Your task to perform on an android device: turn on data saver in the chrome app Image 0: 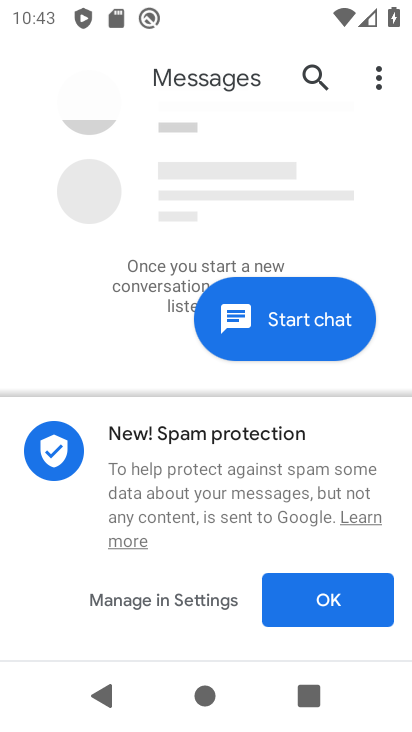
Step 0: press home button
Your task to perform on an android device: turn on data saver in the chrome app Image 1: 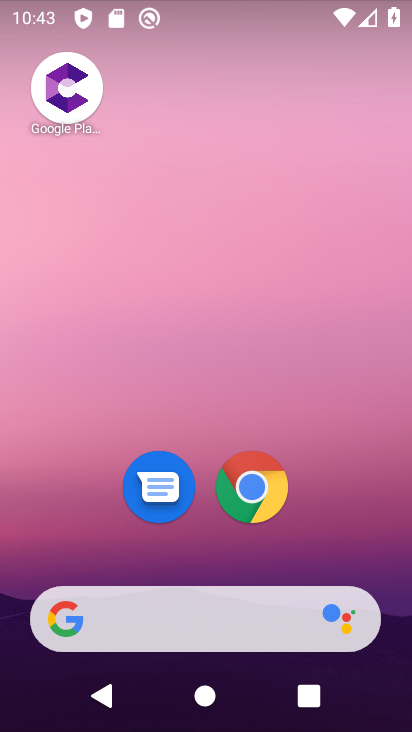
Step 1: click (252, 483)
Your task to perform on an android device: turn on data saver in the chrome app Image 2: 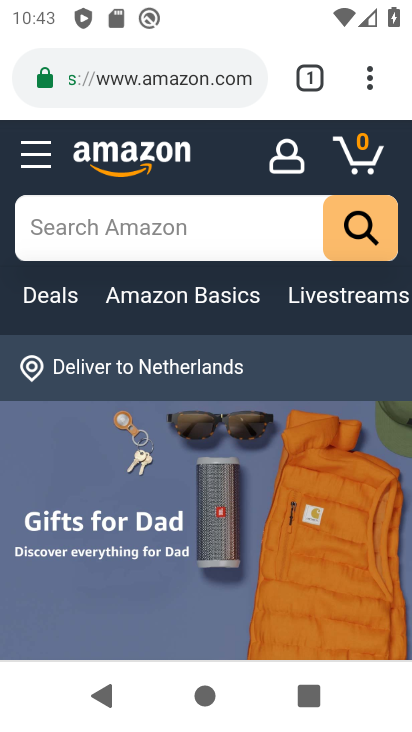
Step 2: click (377, 70)
Your task to perform on an android device: turn on data saver in the chrome app Image 3: 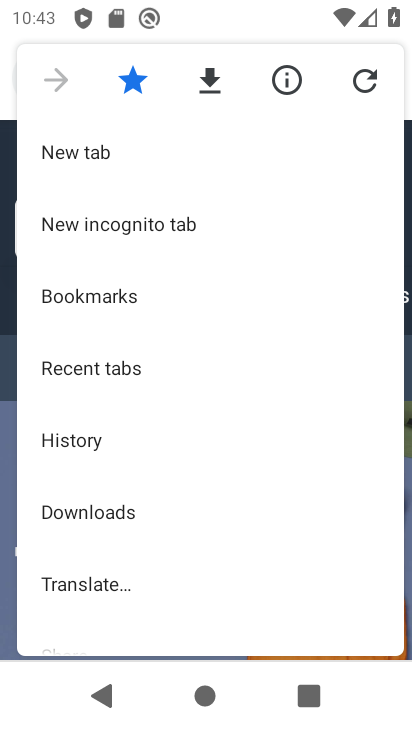
Step 3: drag from (191, 599) to (232, 384)
Your task to perform on an android device: turn on data saver in the chrome app Image 4: 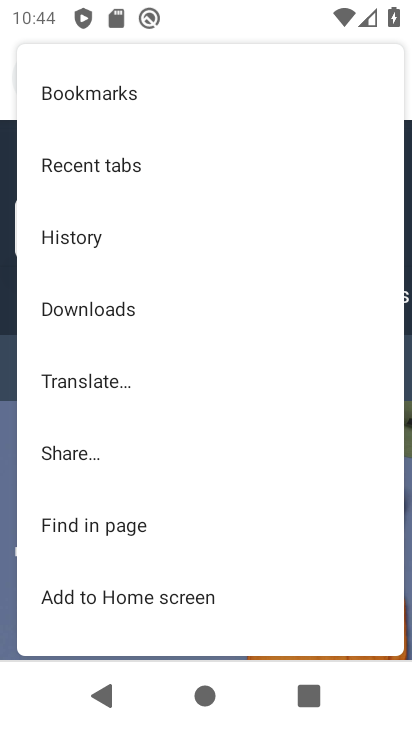
Step 4: drag from (183, 550) to (230, 17)
Your task to perform on an android device: turn on data saver in the chrome app Image 5: 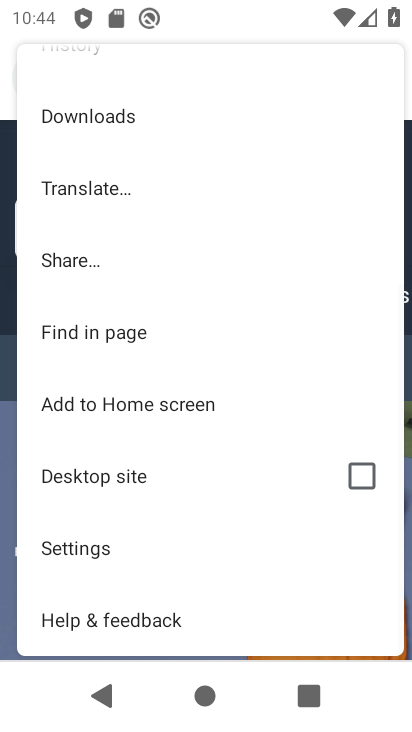
Step 5: click (130, 546)
Your task to perform on an android device: turn on data saver in the chrome app Image 6: 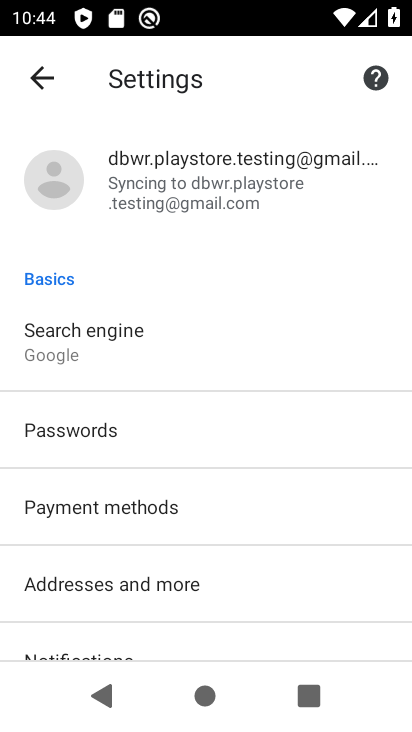
Step 6: drag from (215, 625) to (229, 114)
Your task to perform on an android device: turn on data saver in the chrome app Image 7: 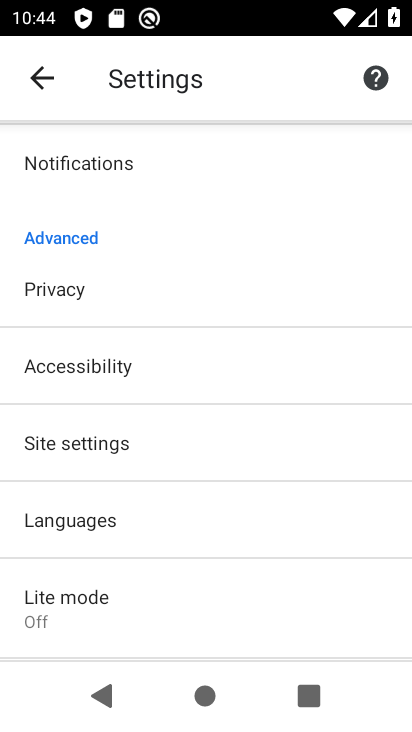
Step 7: click (131, 595)
Your task to perform on an android device: turn on data saver in the chrome app Image 8: 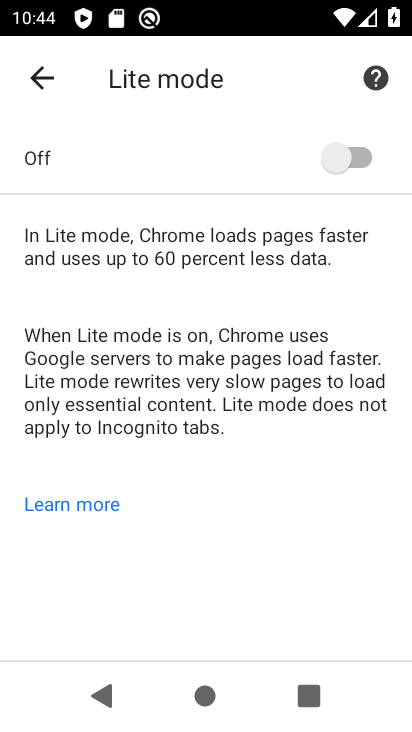
Step 8: click (351, 155)
Your task to perform on an android device: turn on data saver in the chrome app Image 9: 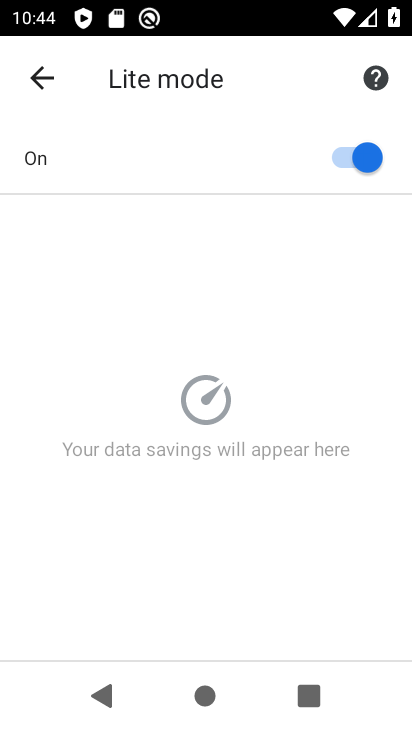
Step 9: task complete